Your task to perform on an android device: open app "Yahoo Mail" Image 0: 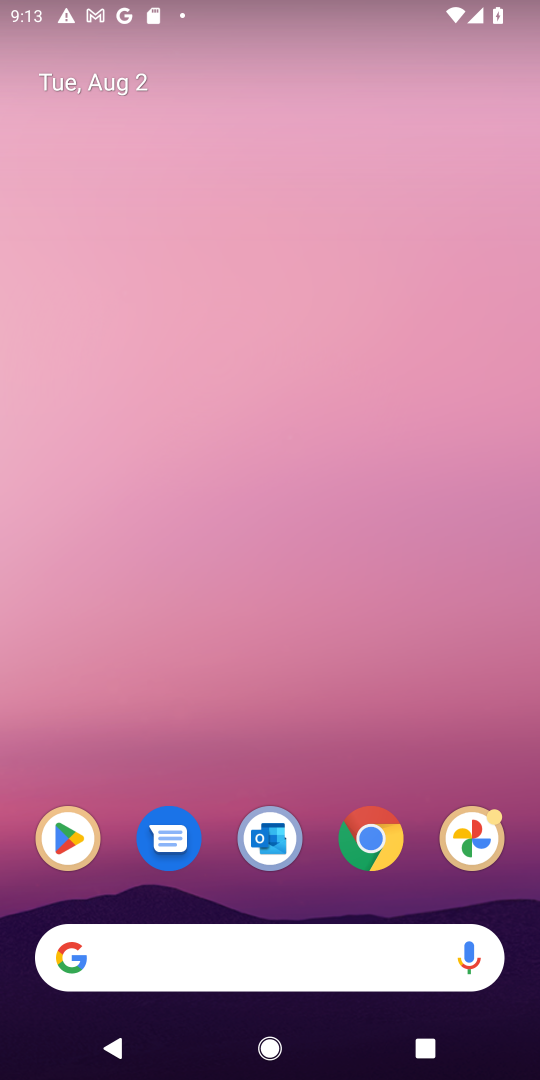
Step 0: press home button
Your task to perform on an android device: open app "Yahoo Mail" Image 1: 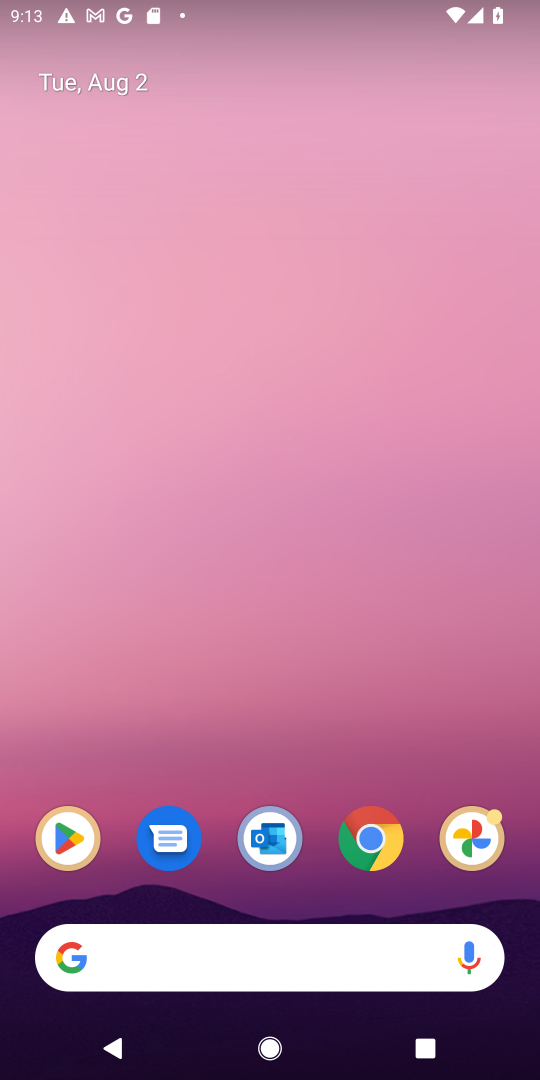
Step 1: drag from (310, 734) to (341, 35)
Your task to perform on an android device: open app "Yahoo Mail" Image 2: 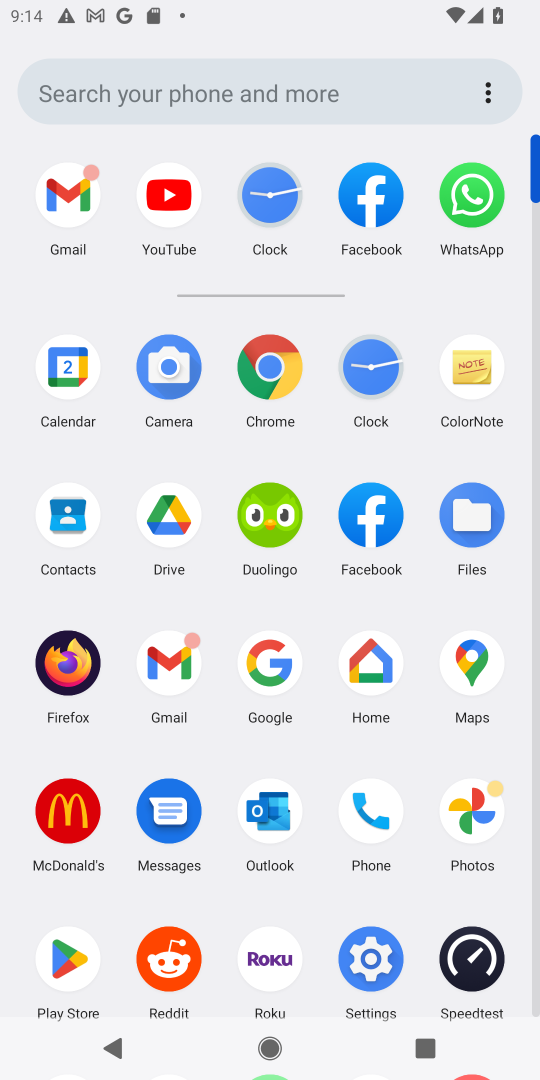
Step 2: click (76, 960)
Your task to perform on an android device: open app "Yahoo Mail" Image 3: 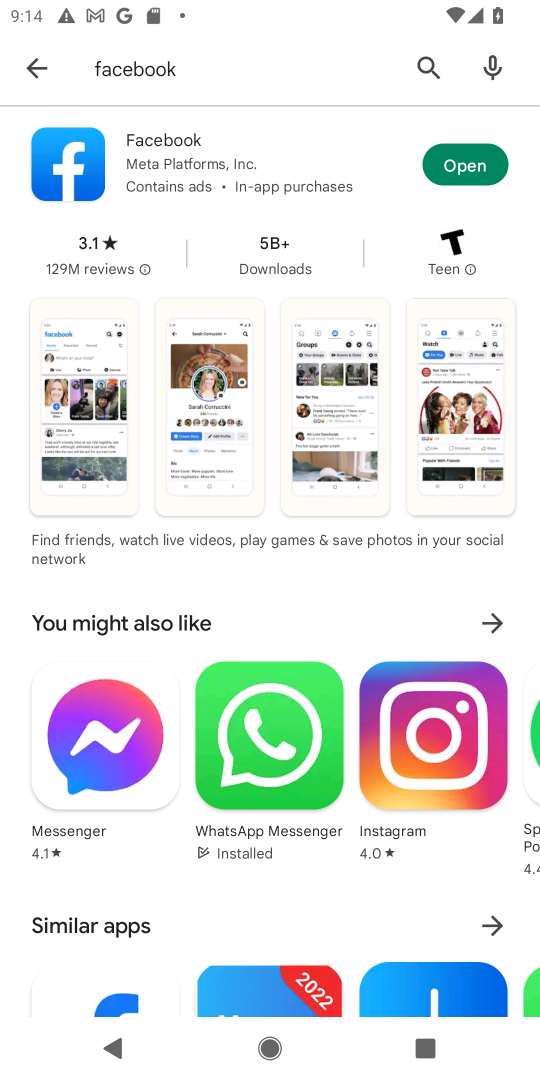
Step 3: click (419, 58)
Your task to perform on an android device: open app "Yahoo Mail" Image 4: 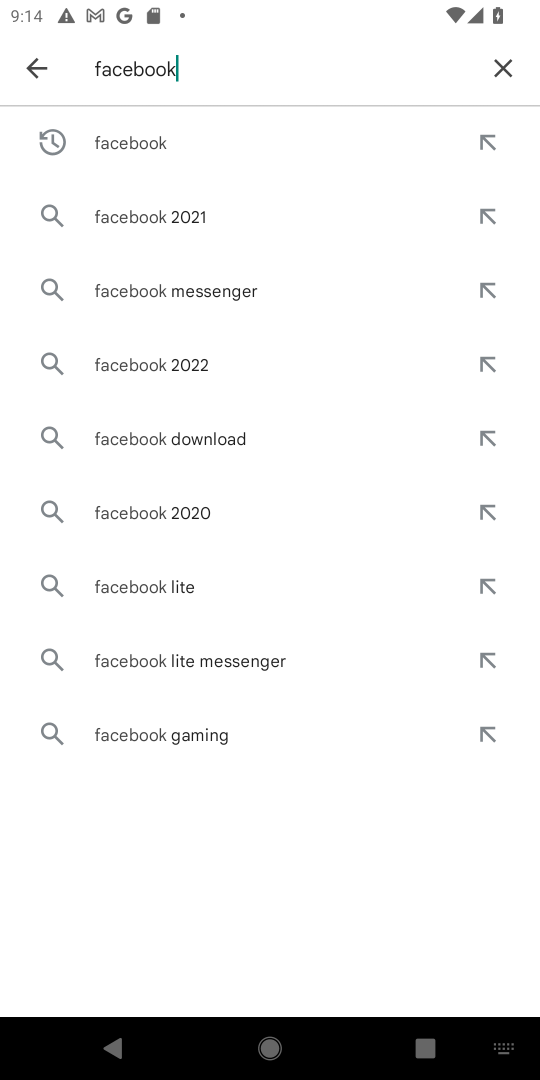
Step 4: click (513, 58)
Your task to perform on an android device: open app "Yahoo Mail" Image 5: 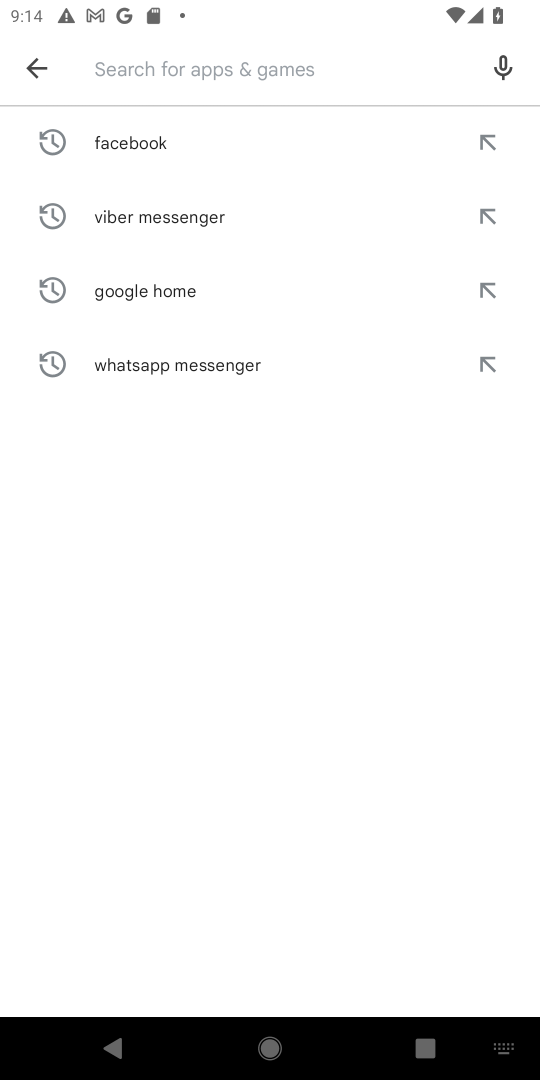
Step 5: click (422, 70)
Your task to perform on an android device: open app "Yahoo Mail" Image 6: 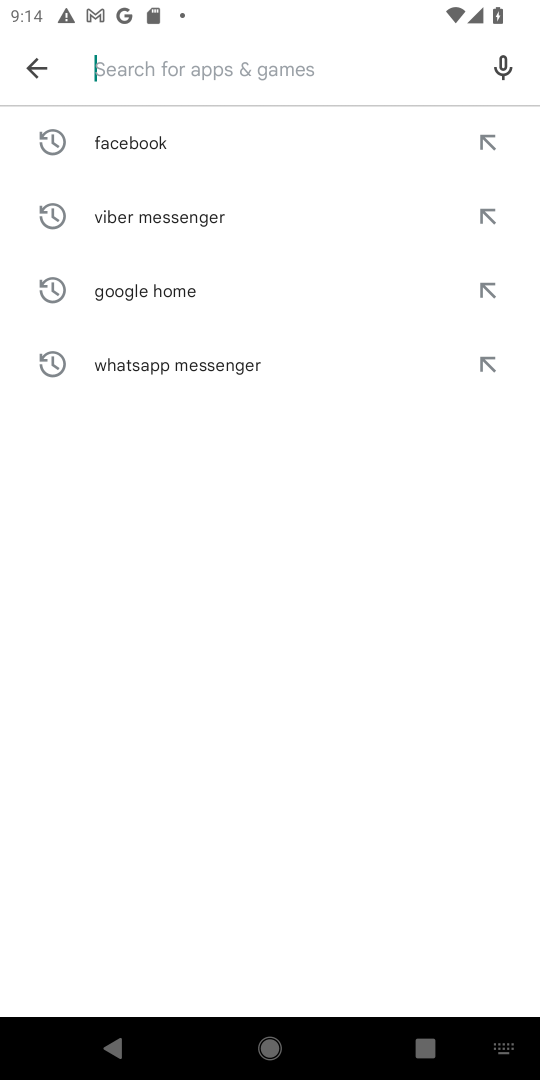
Step 6: type "yahoo mail"
Your task to perform on an android device: open app "Yahoo Mail" Image 7: 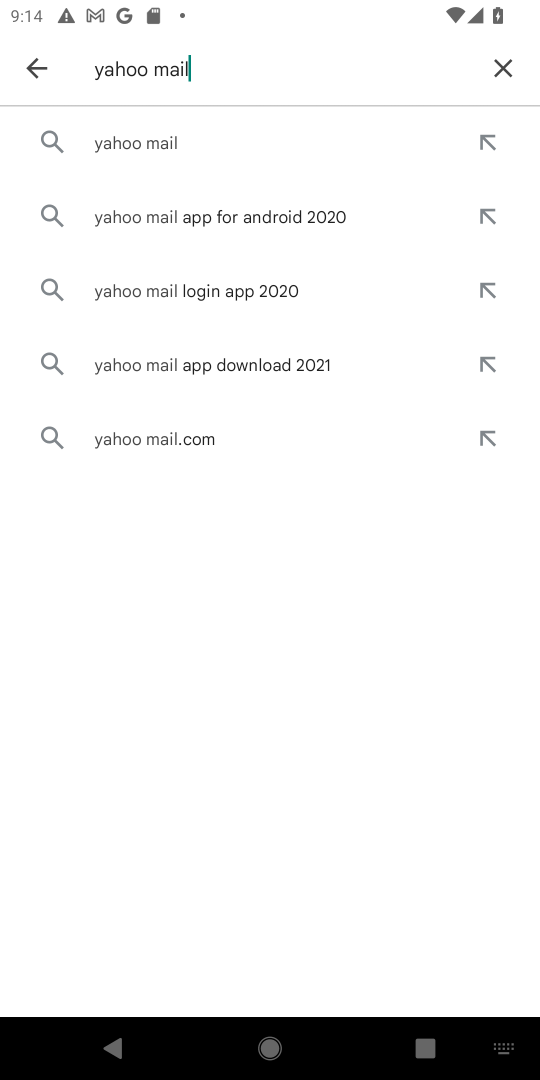
Step 7: click (188, 141)
Your task to perform on an android device: open app "Yahoo Mail" Image 8: 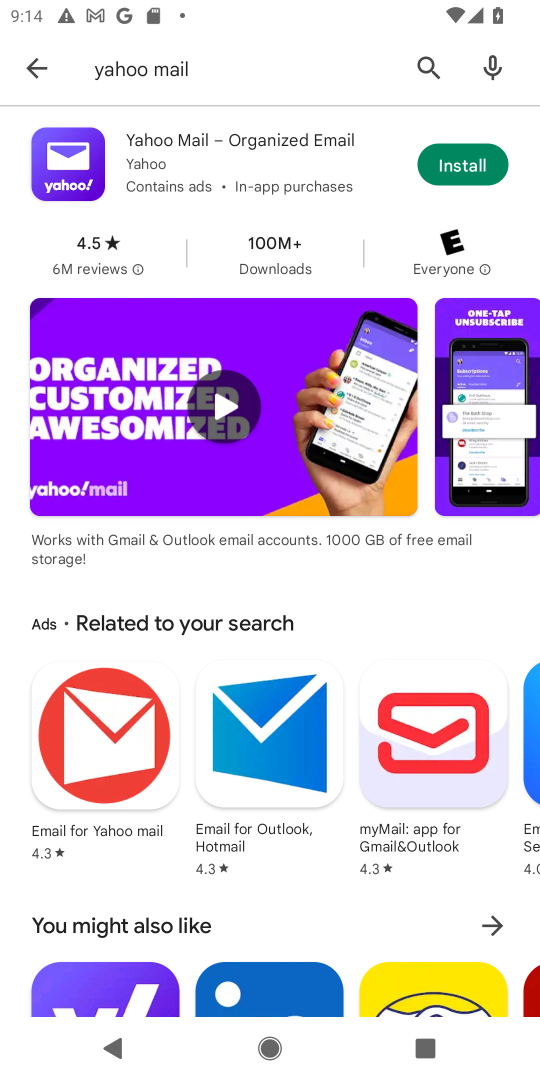
Step 8: task complete